Your task to perform on an android device: What's the news about the US dollar? Image 0: 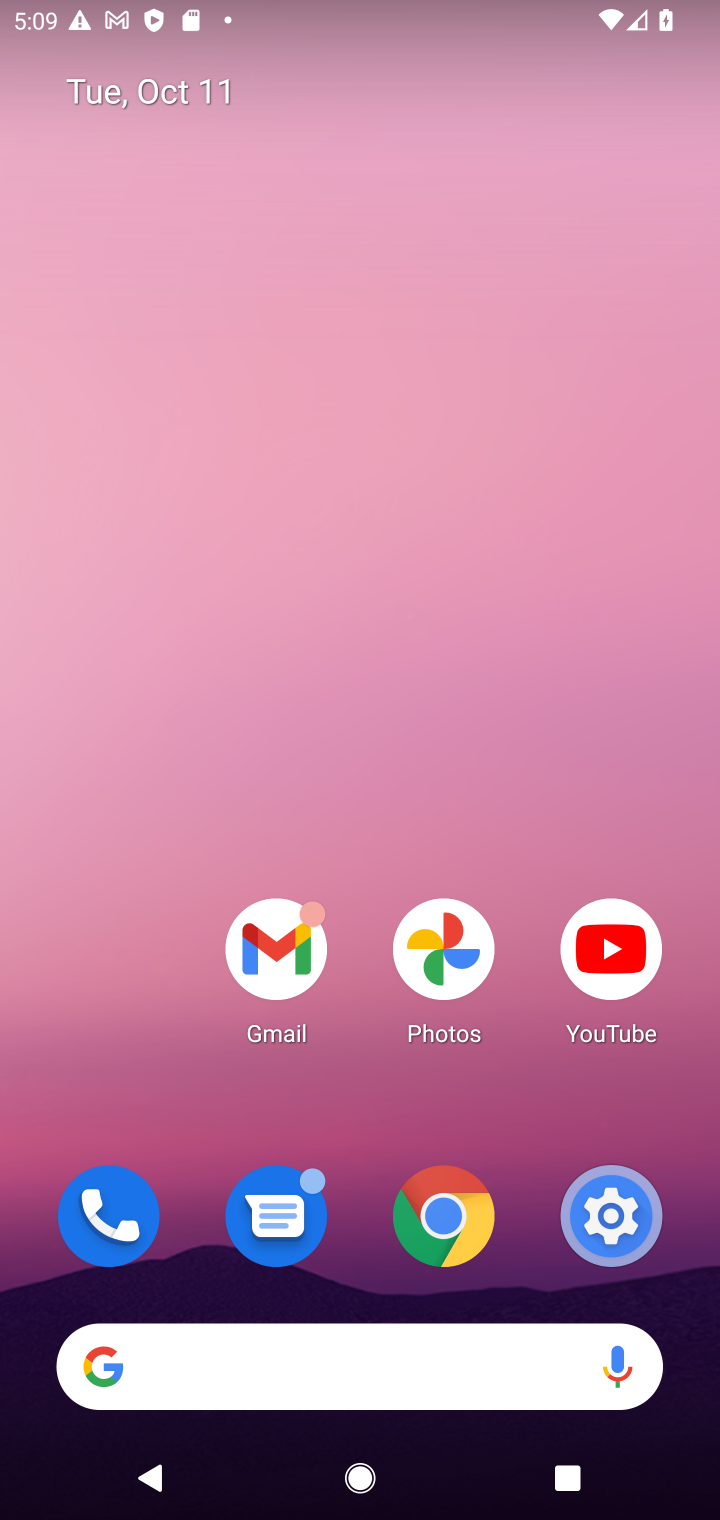
Step 0: drag from (324, 1342) to (305, 398)
Your task to perform on an android device: What's the news about the US dollar? Image 1: 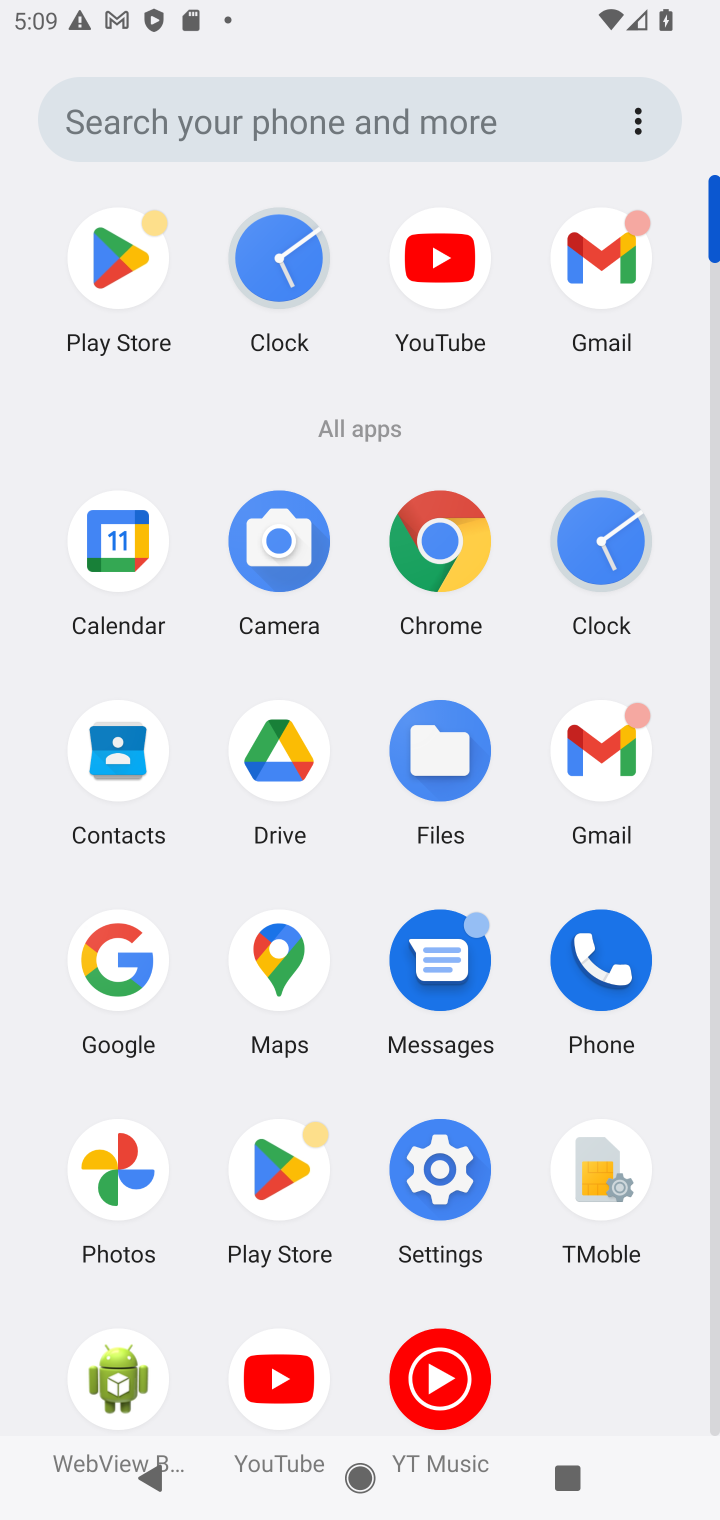
Step 1: click (455, 543)
Your task to perform on an android device: What's the news about the US dollar? Image 2: 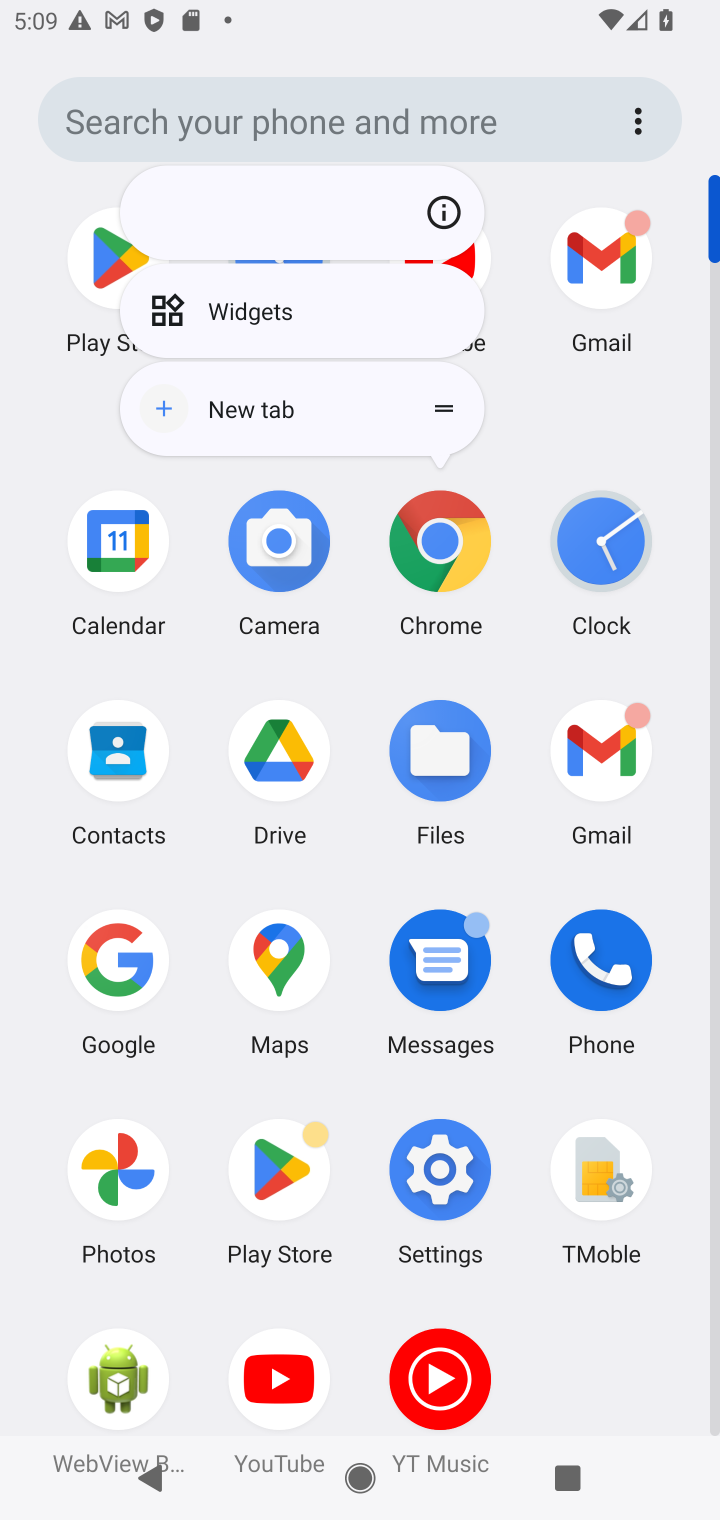
Step 2: click (439, 559)
Your task to perform on an android device: What's the news about the US dollar? Image 3: 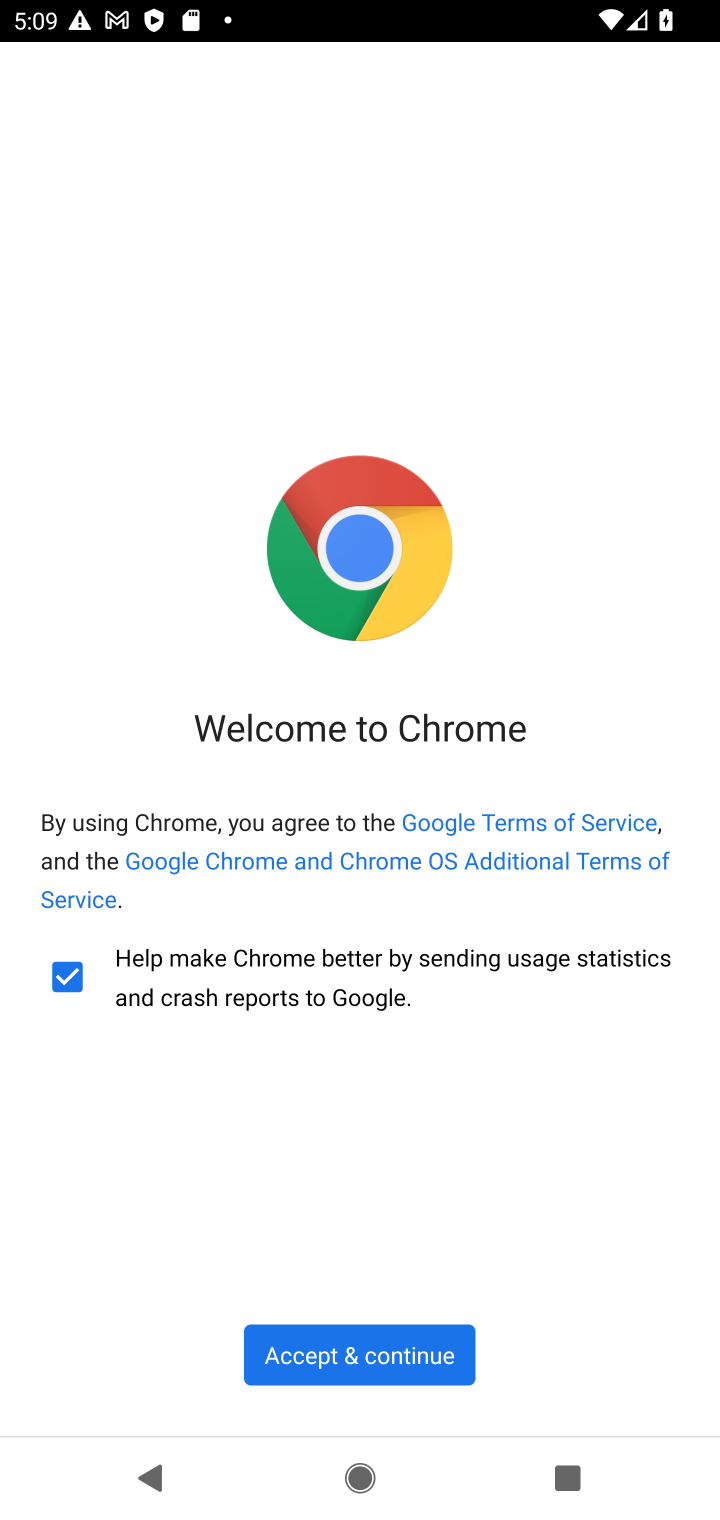
Step 3: click (427, 1369)
Your task to perform on an android device: What's the news about the US dollar? Image 4: 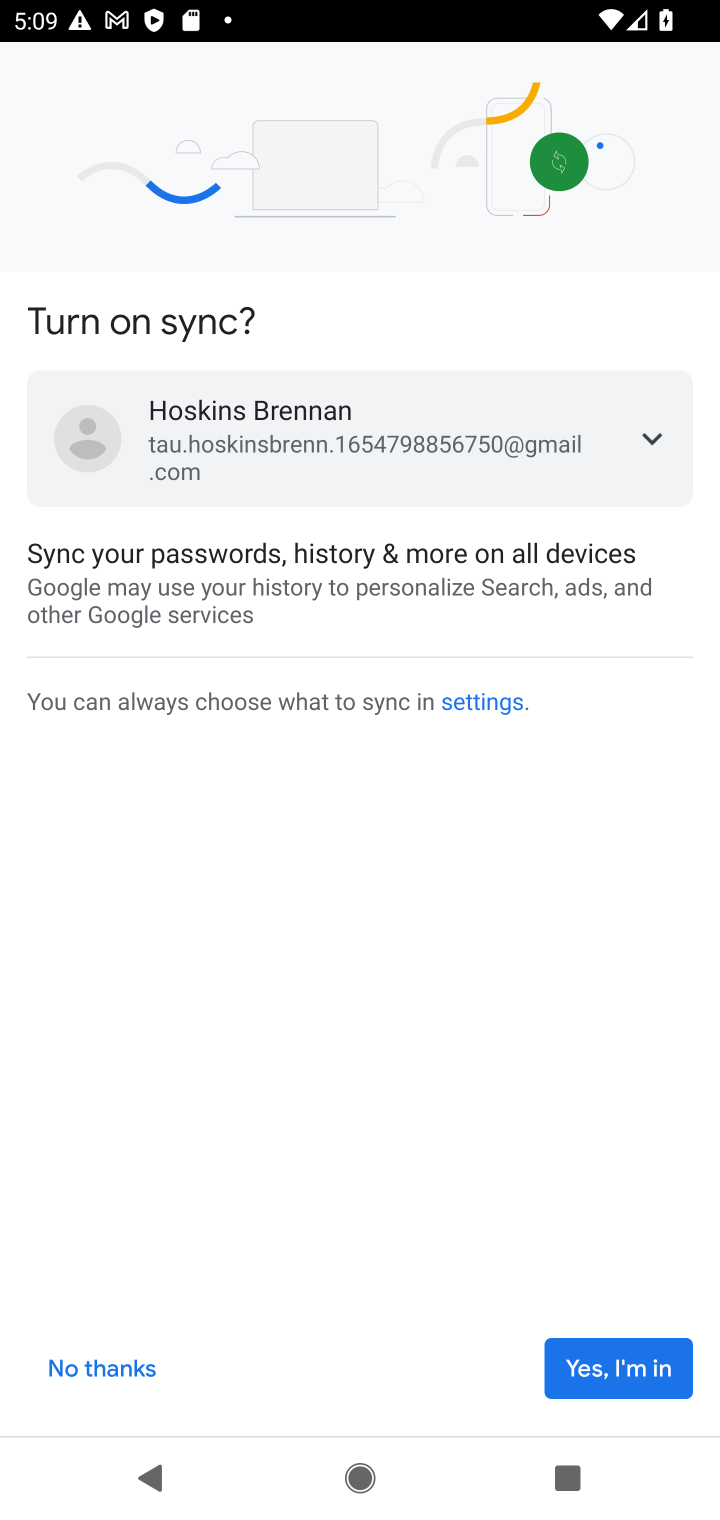
Step 4: click (598, 1360)
Your task to perform on an android device: What's the news about the US dollar? Image 5: 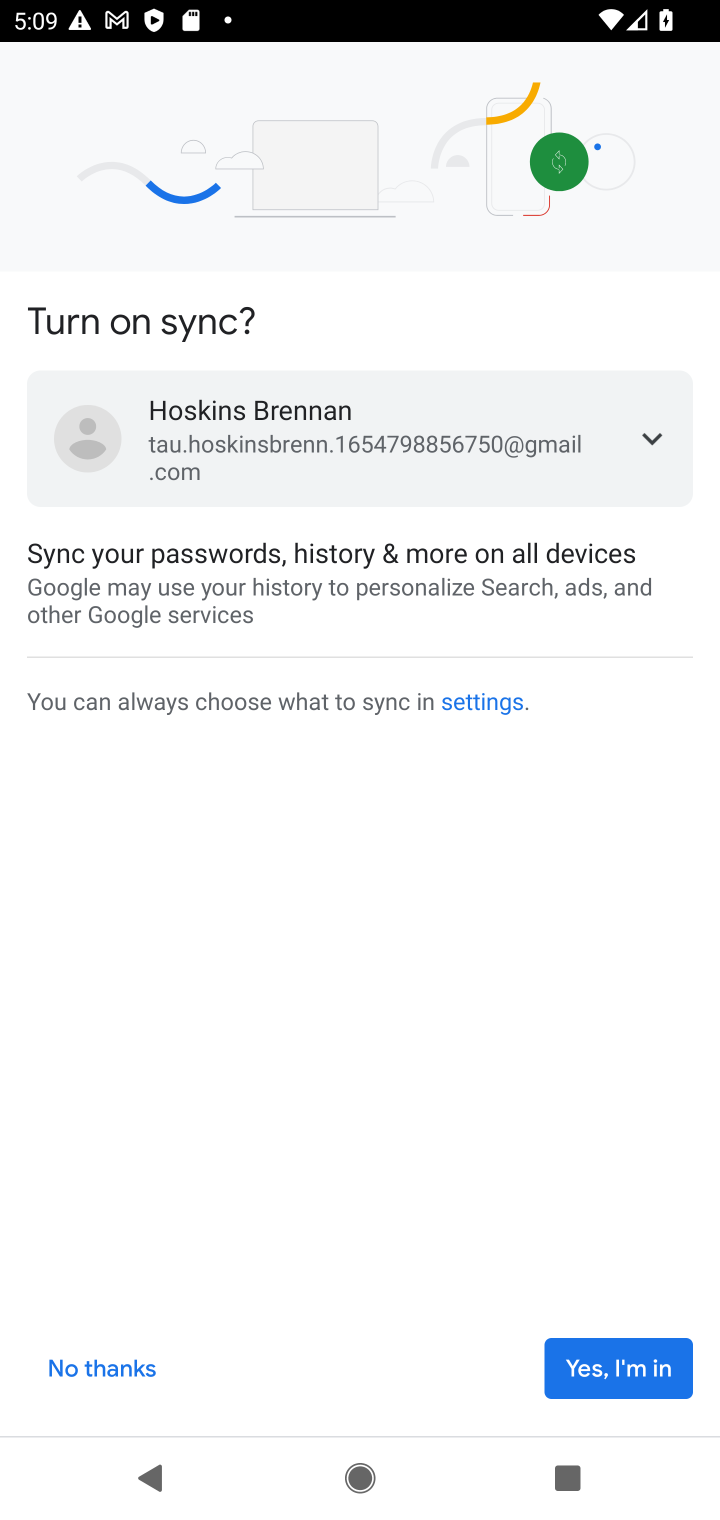
Step 5: click (598, 1360)
Your task to perform on an android device: What's the news about the US dollar? Image 6: 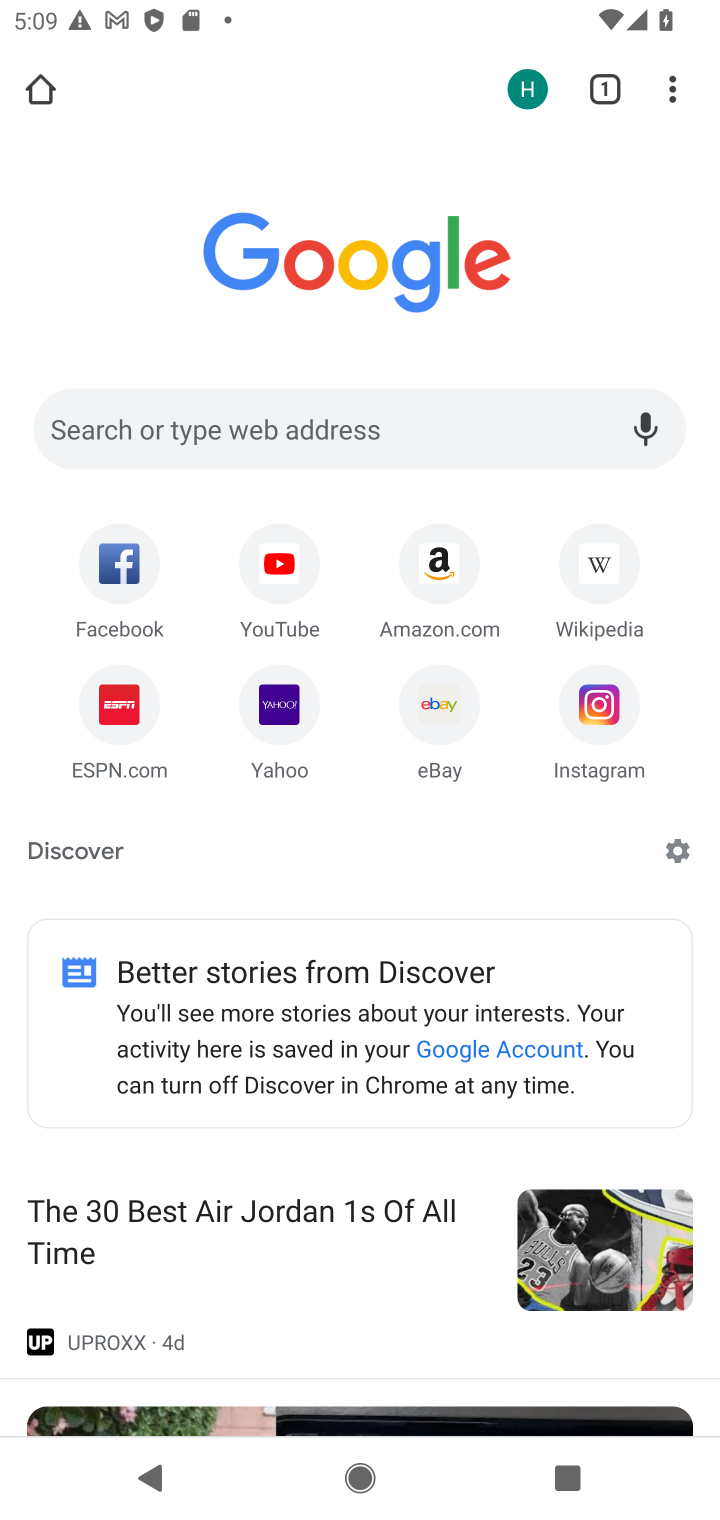
Step 6: click (379, 405)
Your task to perform on an android device: What's the news about the US dollar? Image 7: 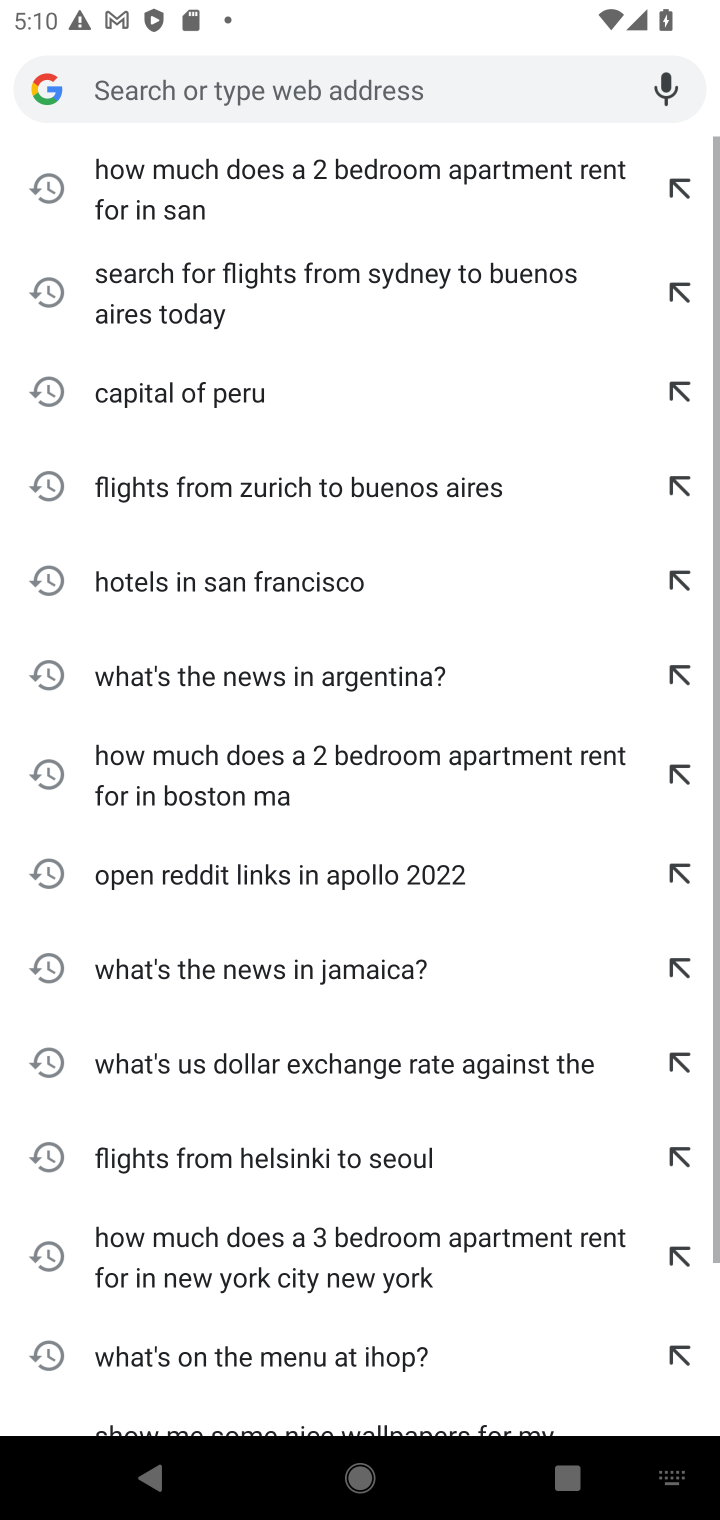
Step 7: type "What's the news about the US dollar?"
Your task to perform on an android device: What's the news about the US dollar? Image 8: 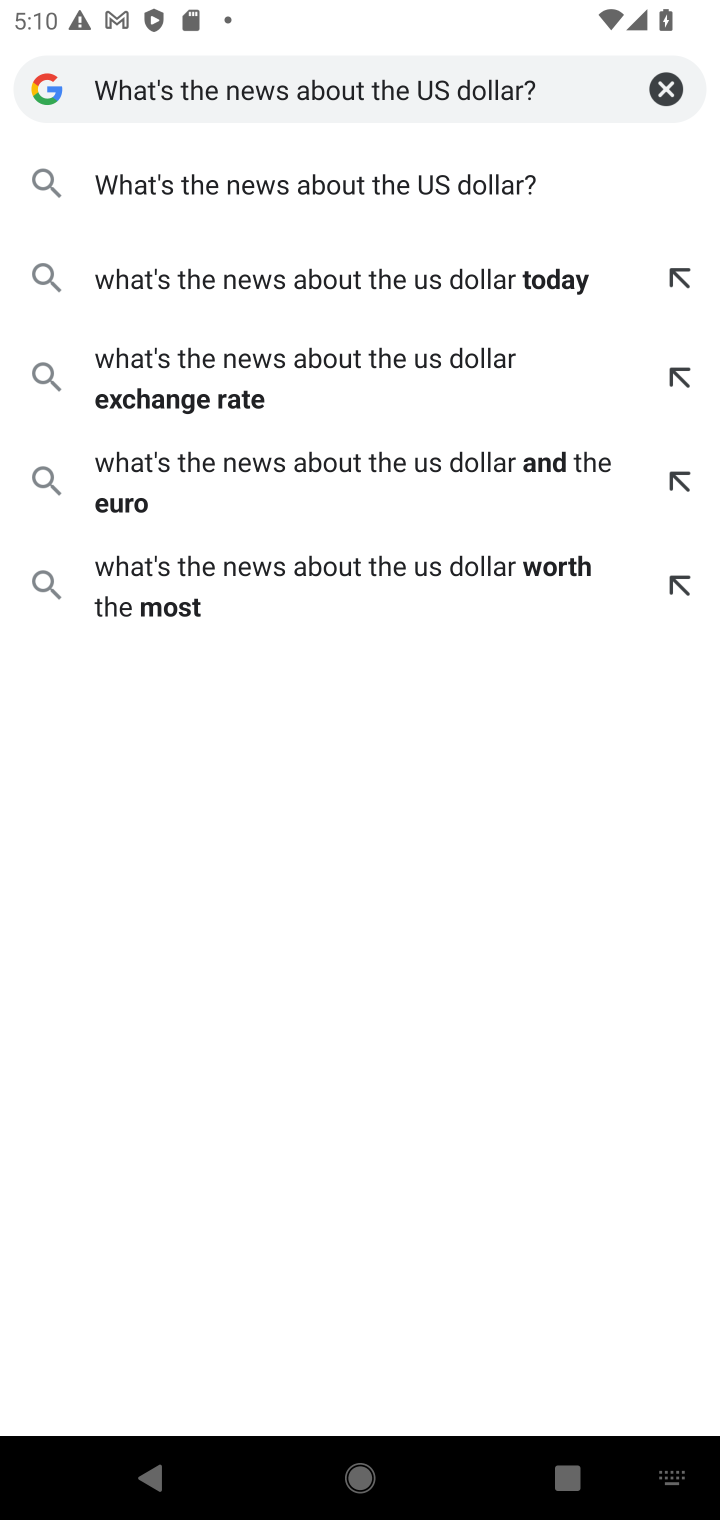
Step 8: click (305, 201)
Your task to perform on an android device: What's the news about the US dollar? Image 9: 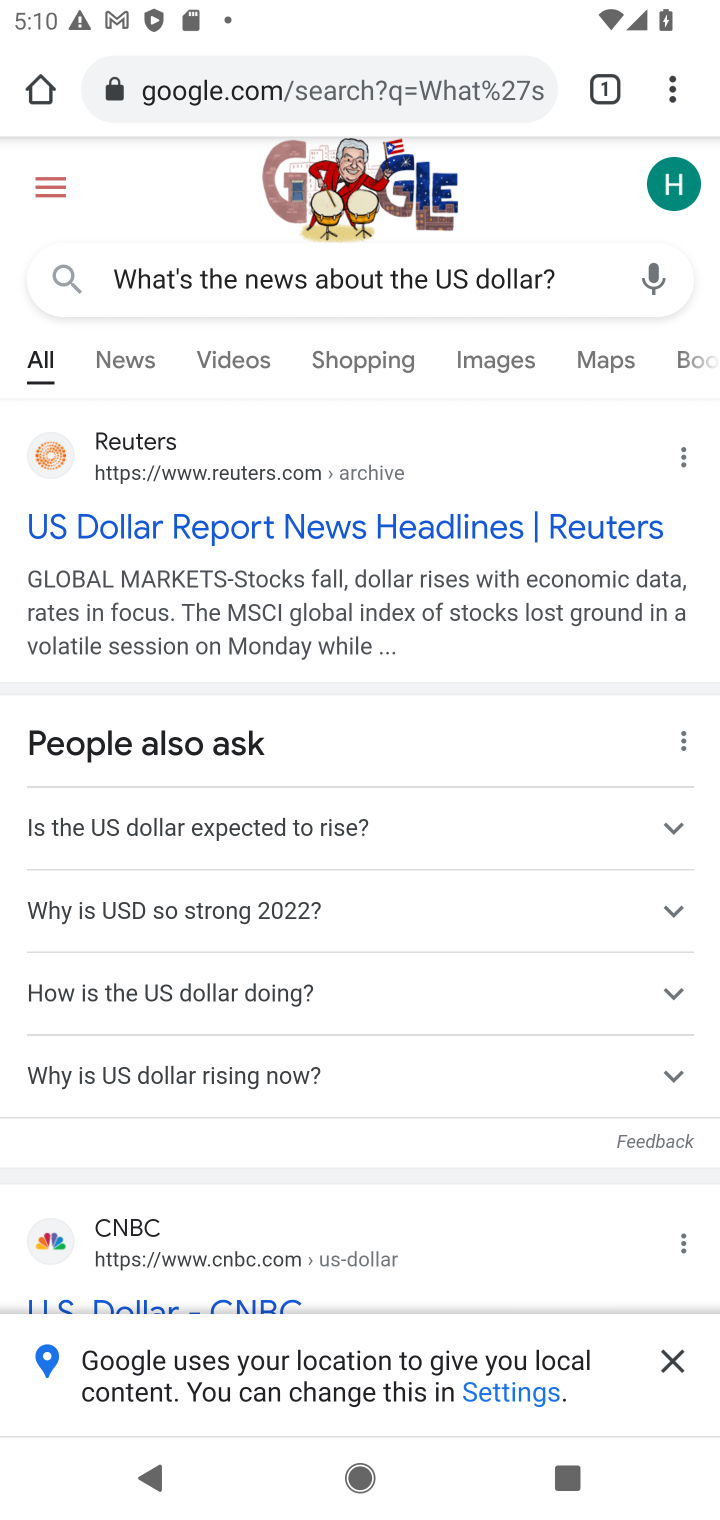
Step 9: click (134, 359)
Your task to perform on an android device: What's the news about the US dollar? Image 10: 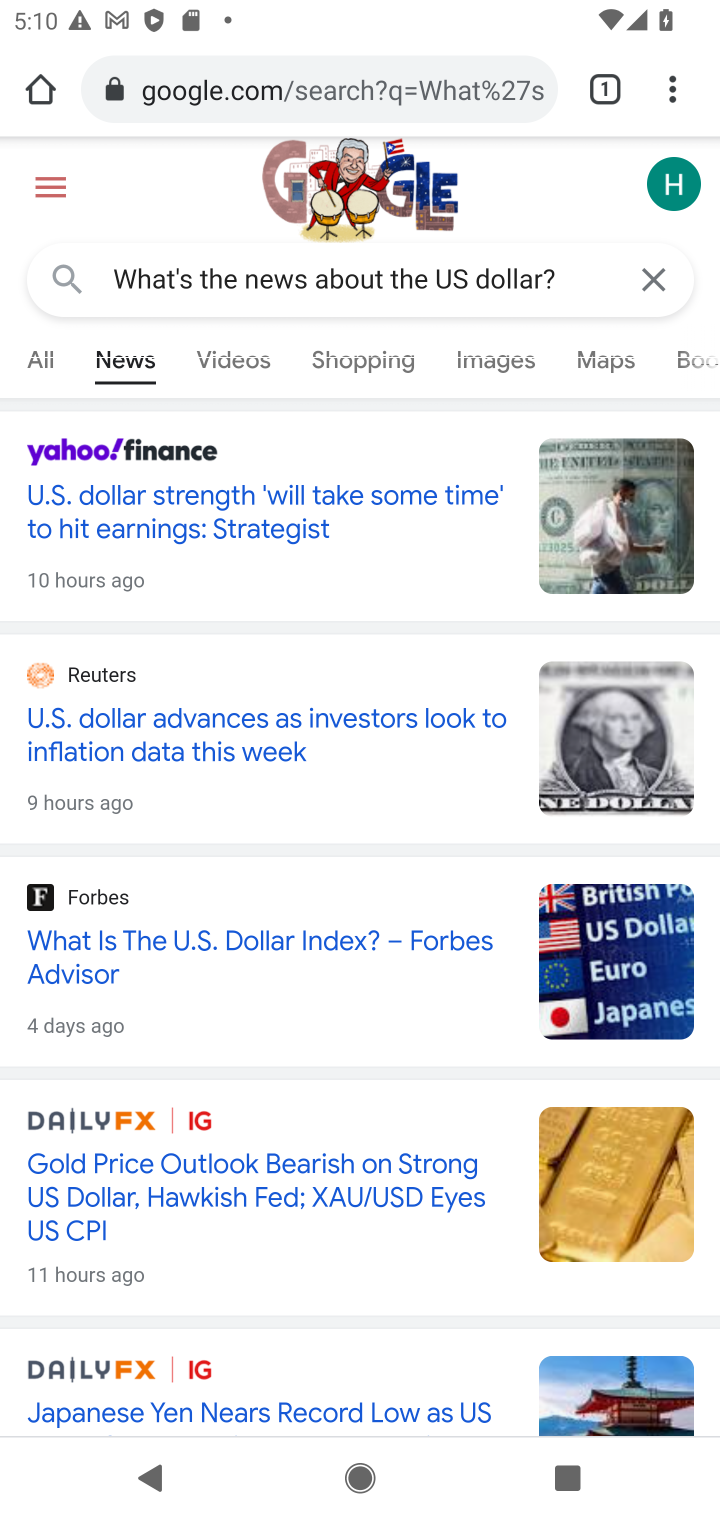
Step 10: task complete